Your task to perform on an android device: Go to display settings Image 0: 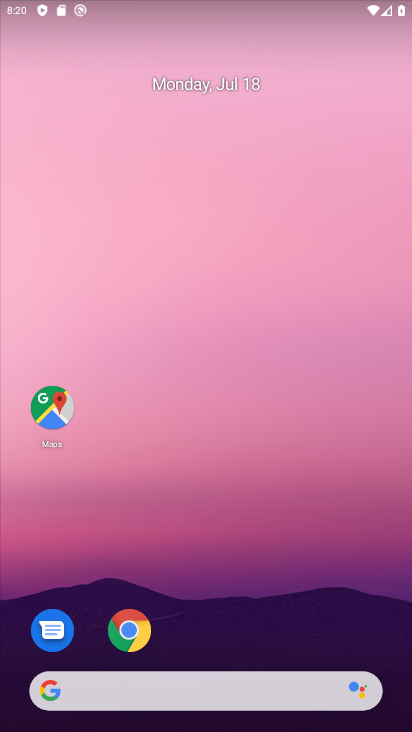
Step 0: drag from (167, 630) to (196, 188)
Your task to perform on an android device: Go to display settings Image 1: 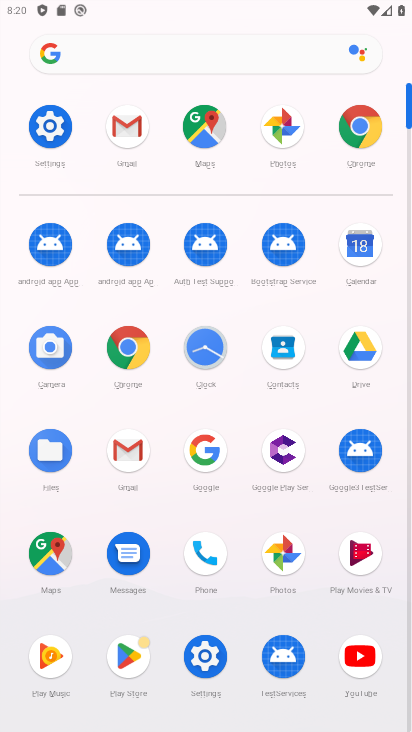
Step 1: click (65, 105)
Your task to perform on an android device: Go to display settings Image 2: 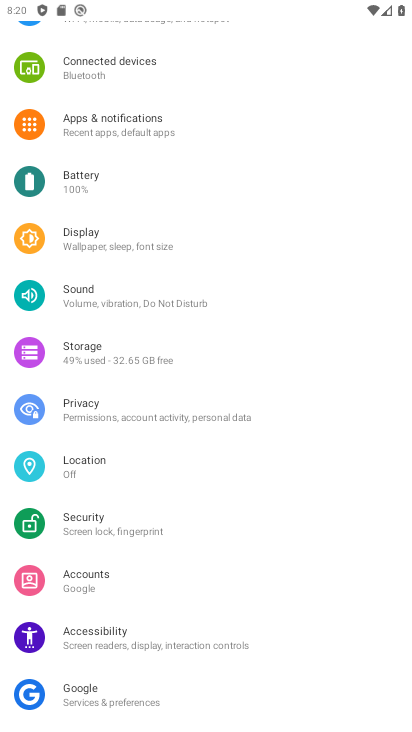
Step 2: click (99, 238)
Your task to perform on an android device: Go to display settings Image 3: 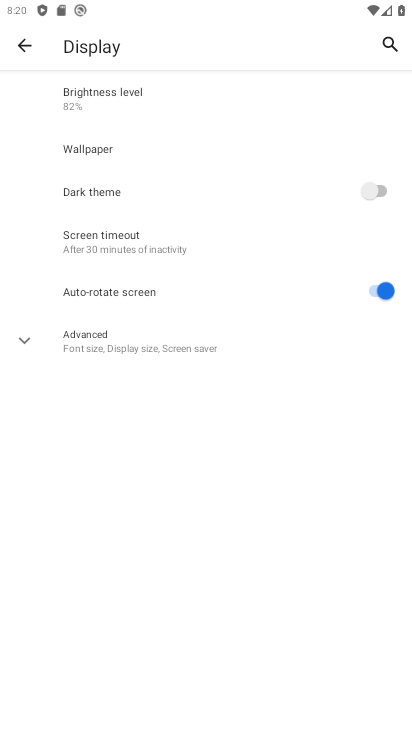
Step 3: task complete